Your task to perform on an android device: Open settings Image 0: 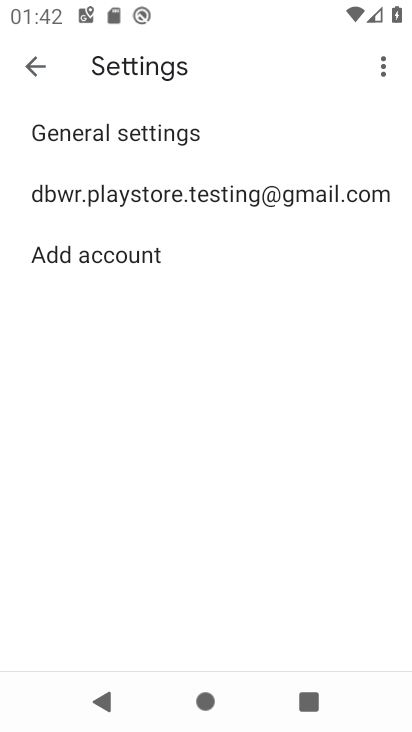
Step 0: press home button
Your task to perform on an android device: Open settings Image 1: 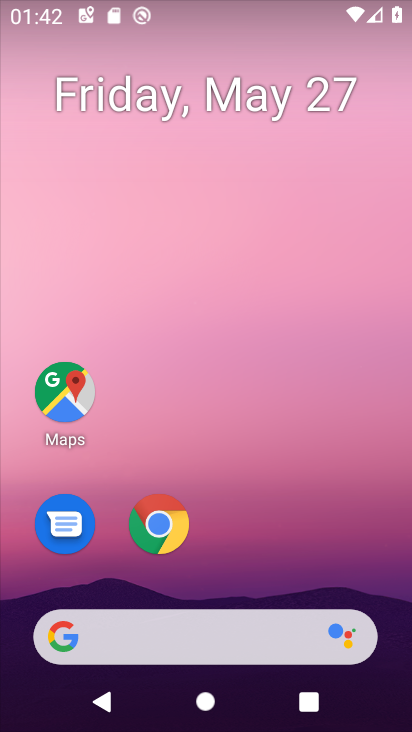
Step 1: drag from (259, 500) to (205, 1)
Your task to perform on an android device: Open settings Image 2: 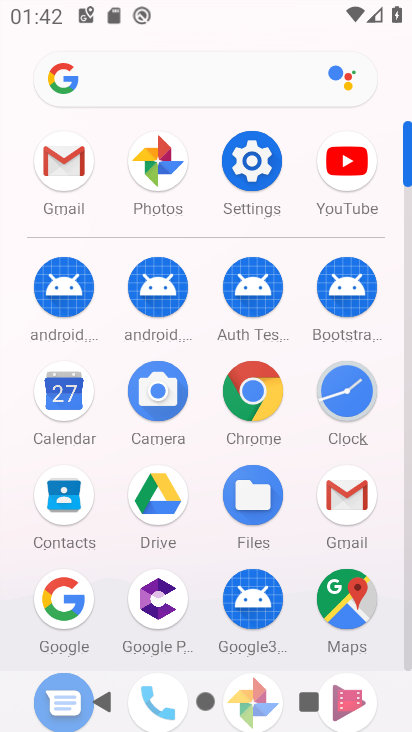
Step 2: click (245, 155)
Your task to perform on an android device: Open settings Image 3: 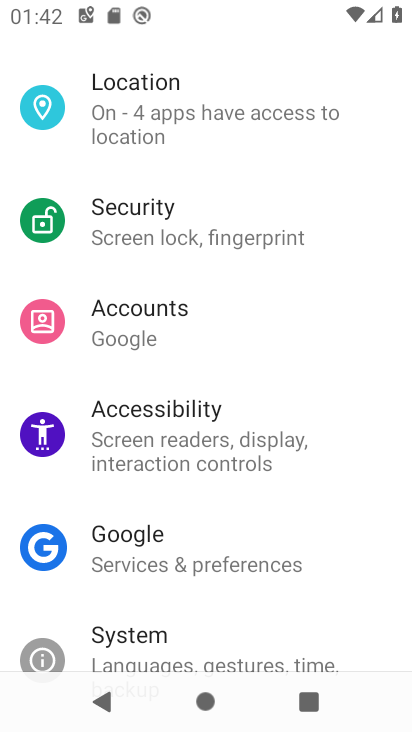
Step 3: task complete